Your task to perform on an android device: Open Yahoo.com Image 0: 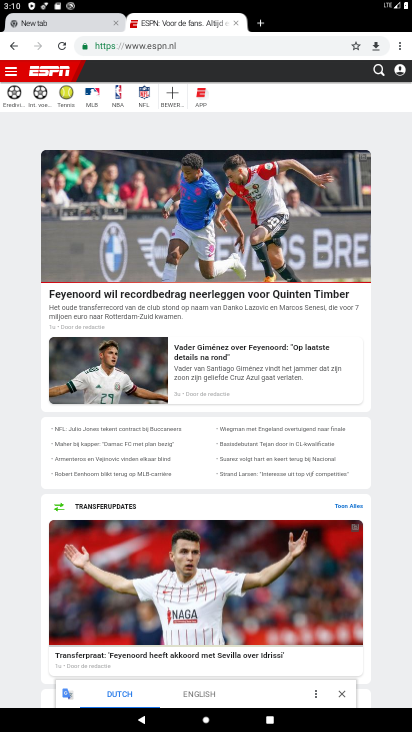
Step 0: click (194, 49)
Your task to perform on an android device: Open Yahoo.com Image 1: 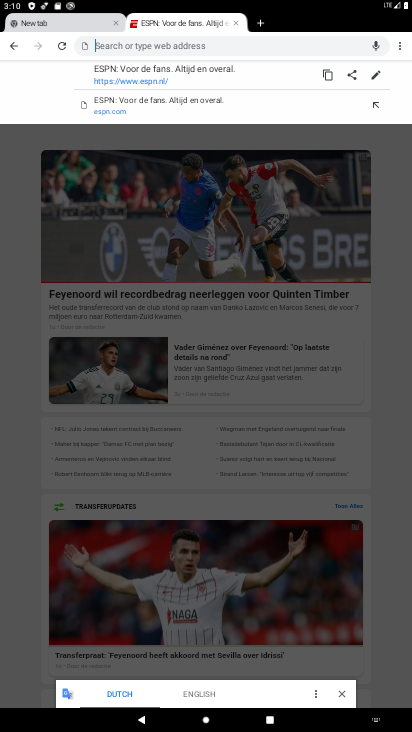
Step 1: type "popular games"
Your task to perform on an android device: Open Yahoo.com Image 2: 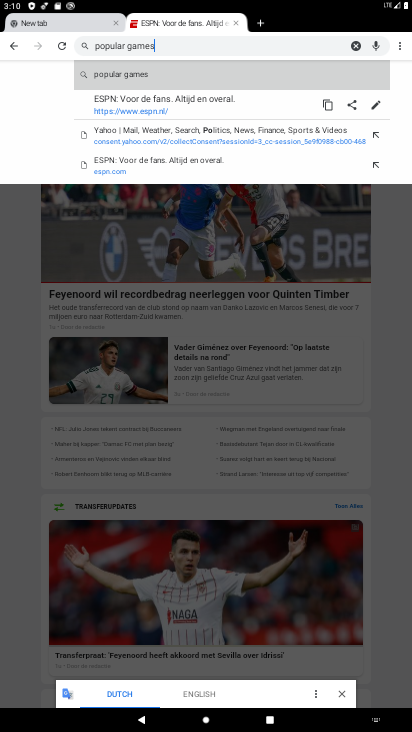
Step 2: type ""
Your task to perform on an android device: Open Yahoo.com Image 3: 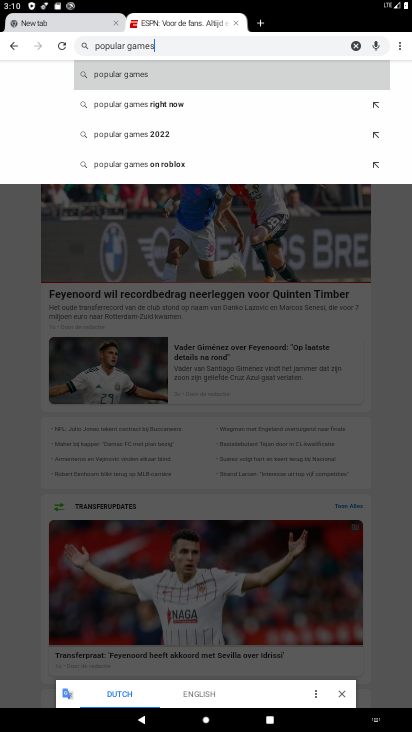
Step 3: click (104, 73)
Your task to perform on an android device: Open Yahoo.com Image 4: 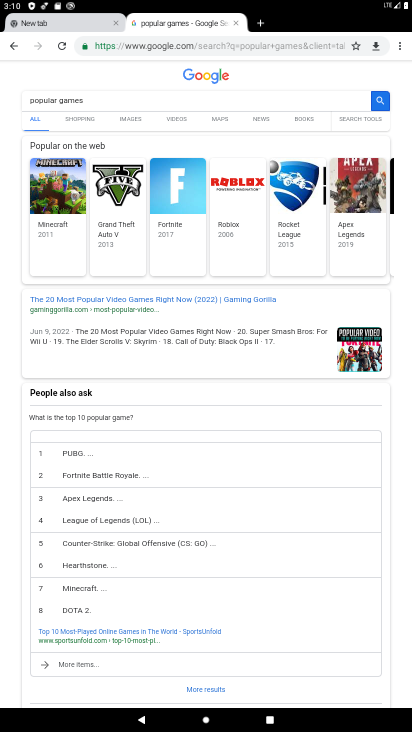
Step 4: task complete